Your task to perform on an android device: move a message to another label in the gmail app Image 0: 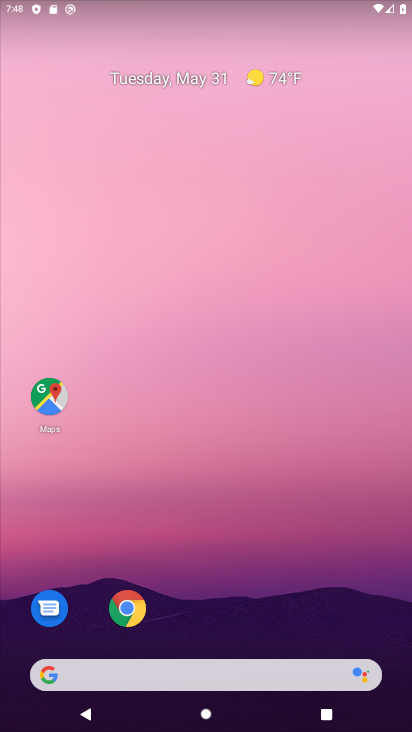
Step 0: drag from (234, 656) to (112, 21)
Your task to perform on an android device: move a message to another label in the gmail app Image 1: 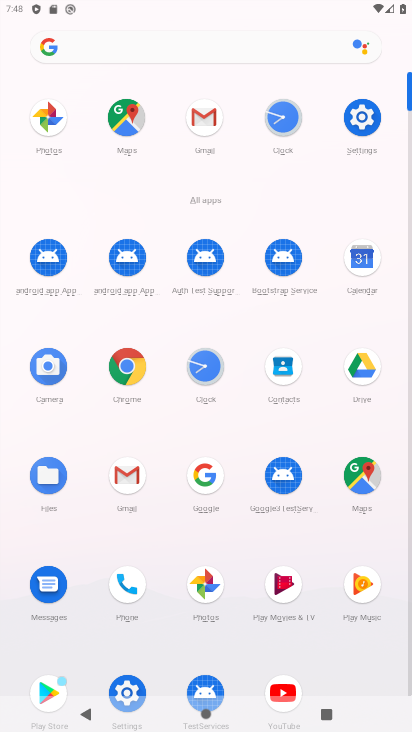
Step 1: click (118, 480)
Your task to perform on an android device: move a message to another label in the gmail app Image 2: 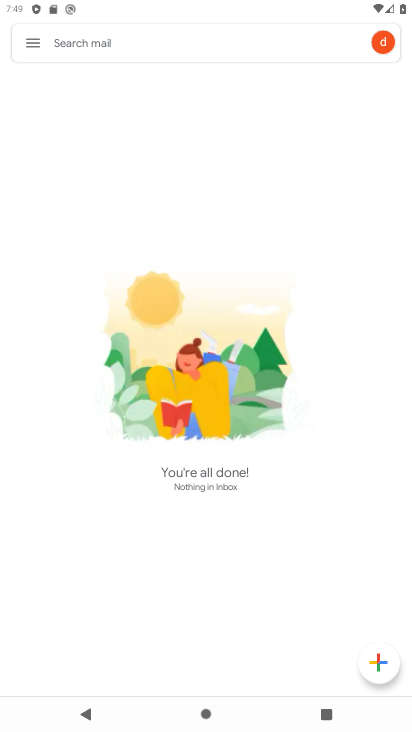
Step 2: task complete